Your task to perform on an android device: View the shopping cart on newegg.com. Search for "beats solo 3" on newegg.com, select the first entry, add it to the cart, then select checkout. Image 0: 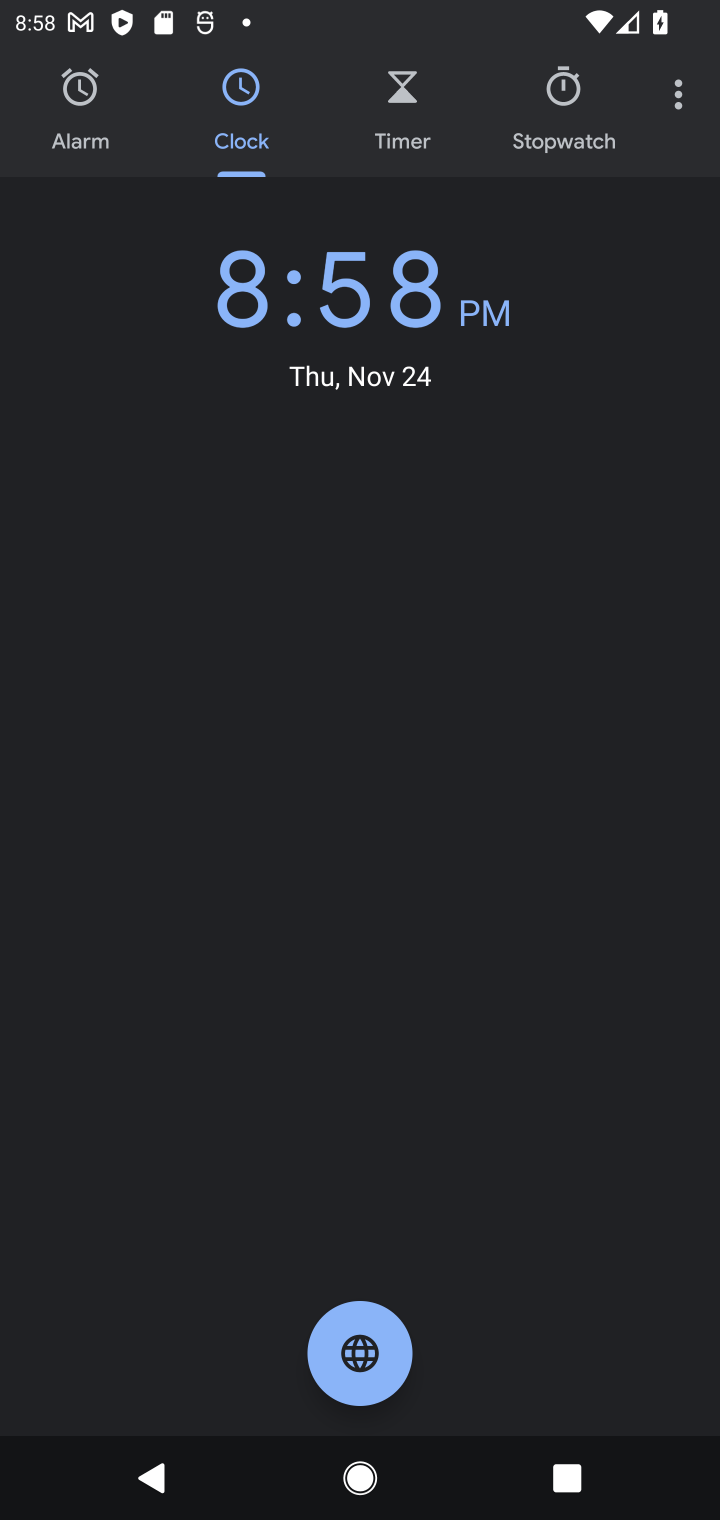
Step 0: press home button
Your task to perform on an android device: View the shopping cart on newegg.com. Search for "beats solo 3" on newegg.com, select the first entry, add it to the cart, then select checkout. Image 1: 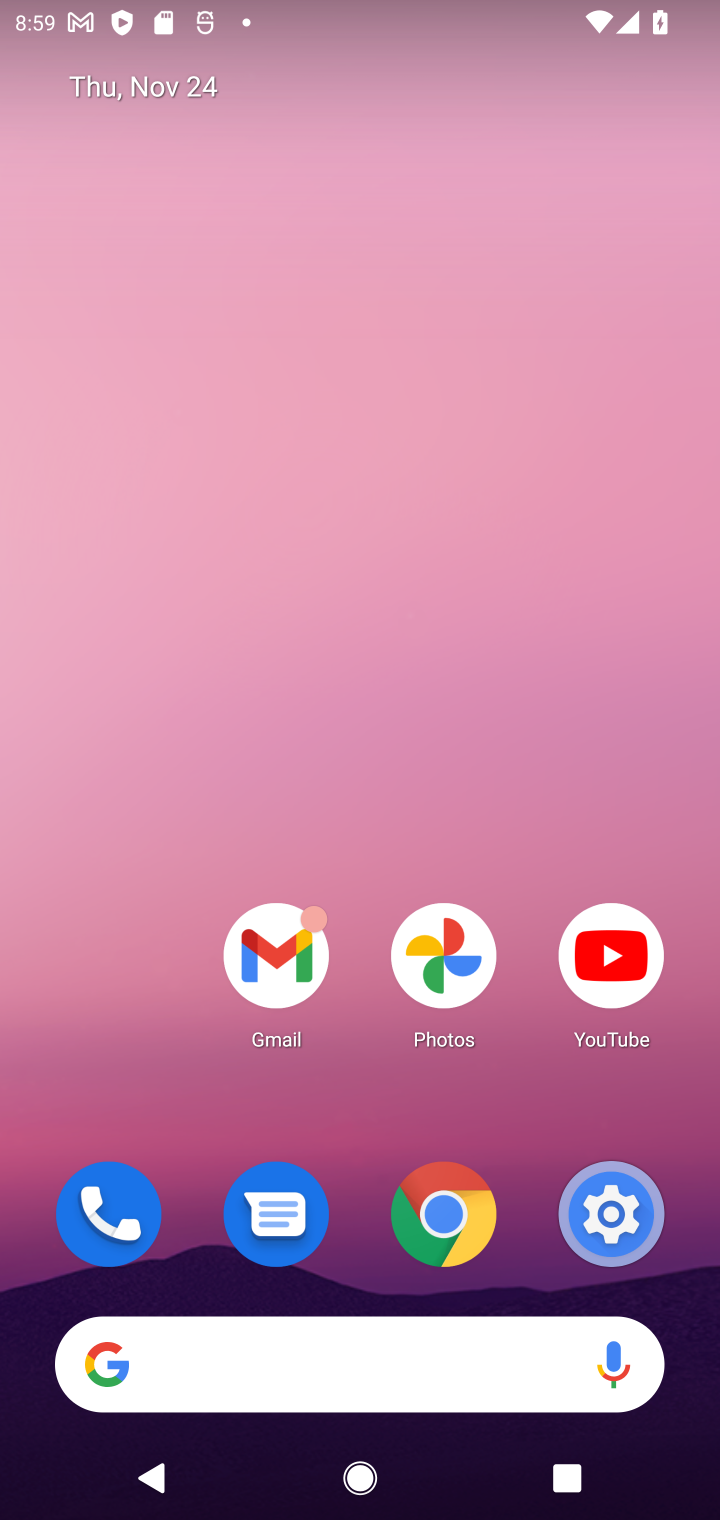
Step 1: click (320, 1345)
Your task to perform on an android device: View the shopping cart on newegg.com. Search for "beats solo 3" on newegg.com, select the first entry, add it to the cart, then select checkout. Image 2: 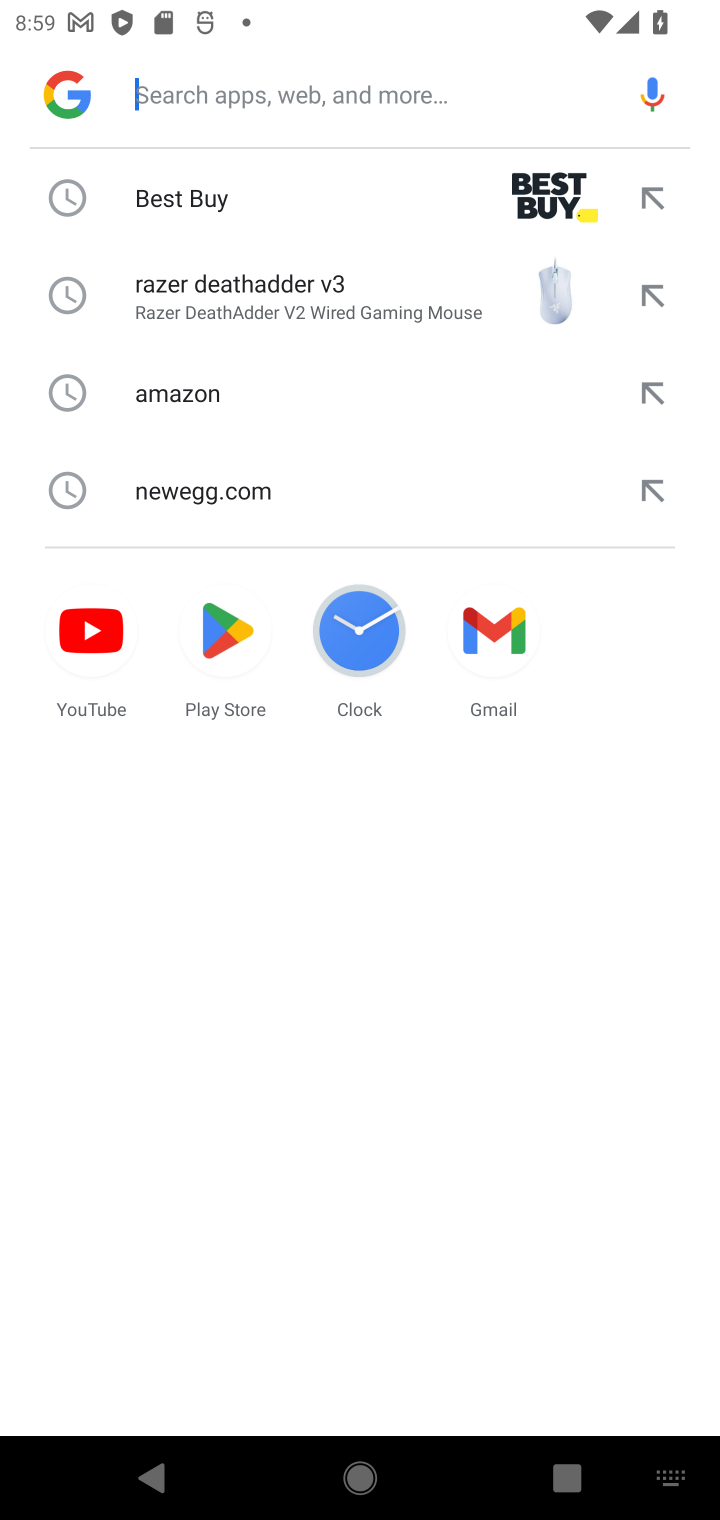
Step 2: type "beats solo 3"
Your task to perform on an android device: View the shopping cart on newegg.com. Search for "beats solo 3" on newegg.com, select the first entry, add it to the cart, then select checkout. Image 3: 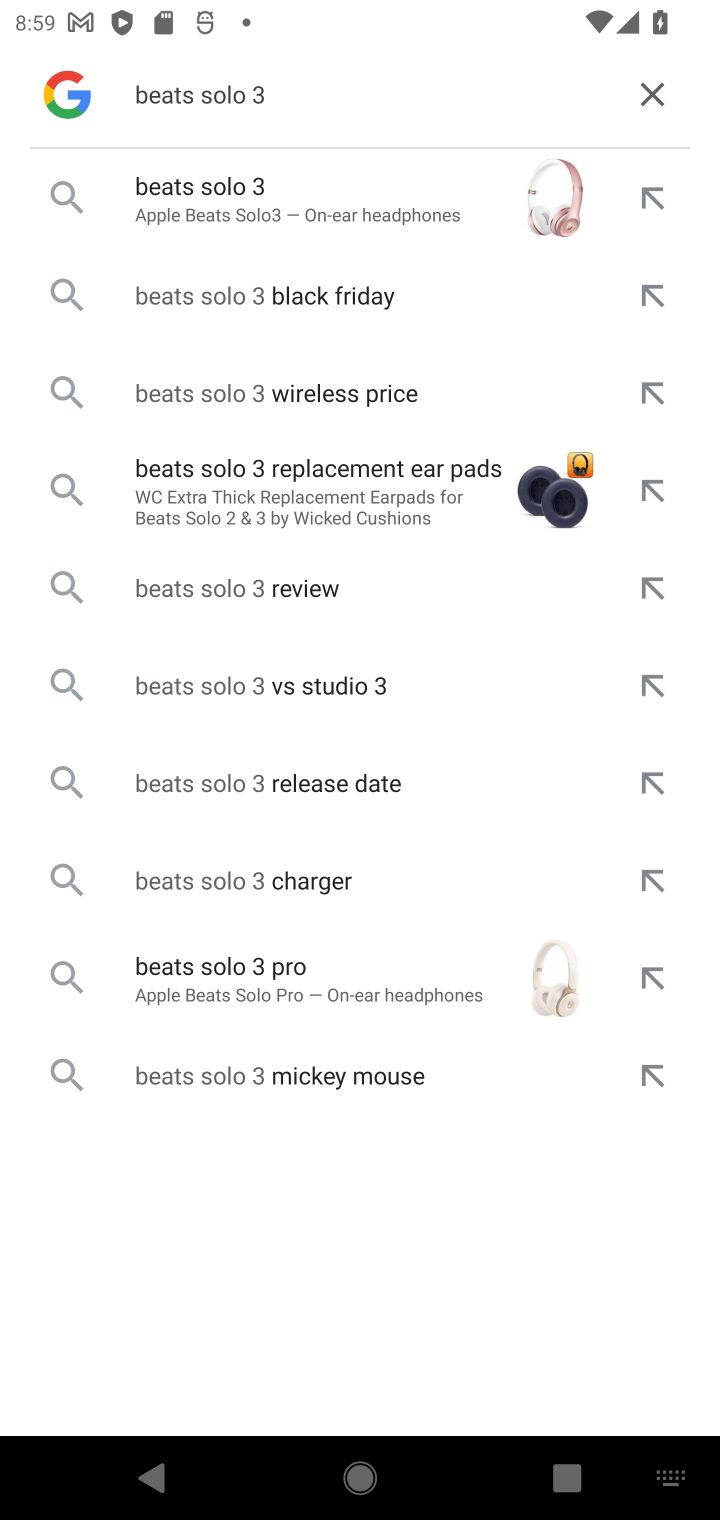
Step 3: click (332, 166)
Your task to perform on an android device: View the shopping cart on newegg.com. Search for "beats solo 3" on newegg.com, select the first entry, add it to the cart, then select checkout. Image 4: 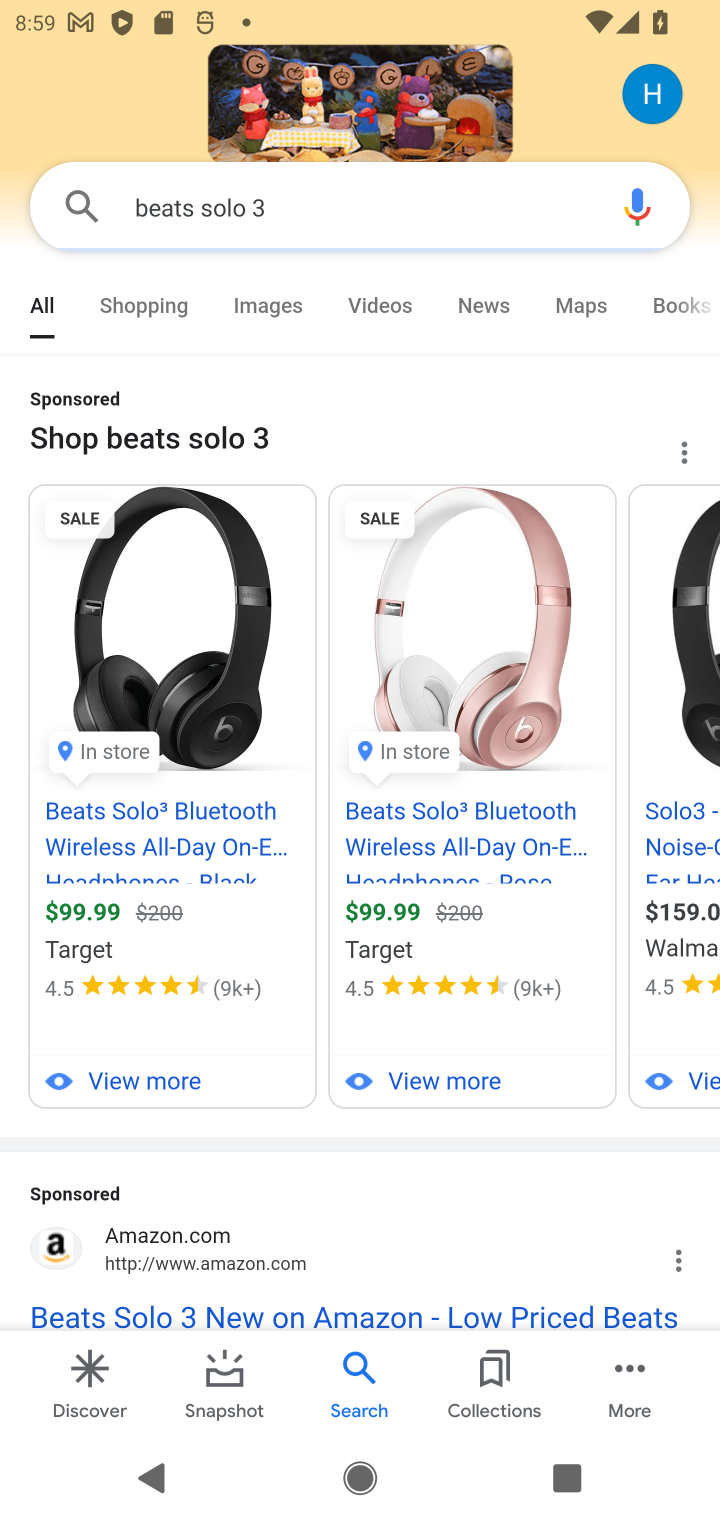
Step 4: click (252, 815)
Your task to perform on an android device: View the shopping cart on newegg.com. Search for "beats solo 3" on newegg.com, select the first entry, add it to the cart, then select checkout. Image 5: 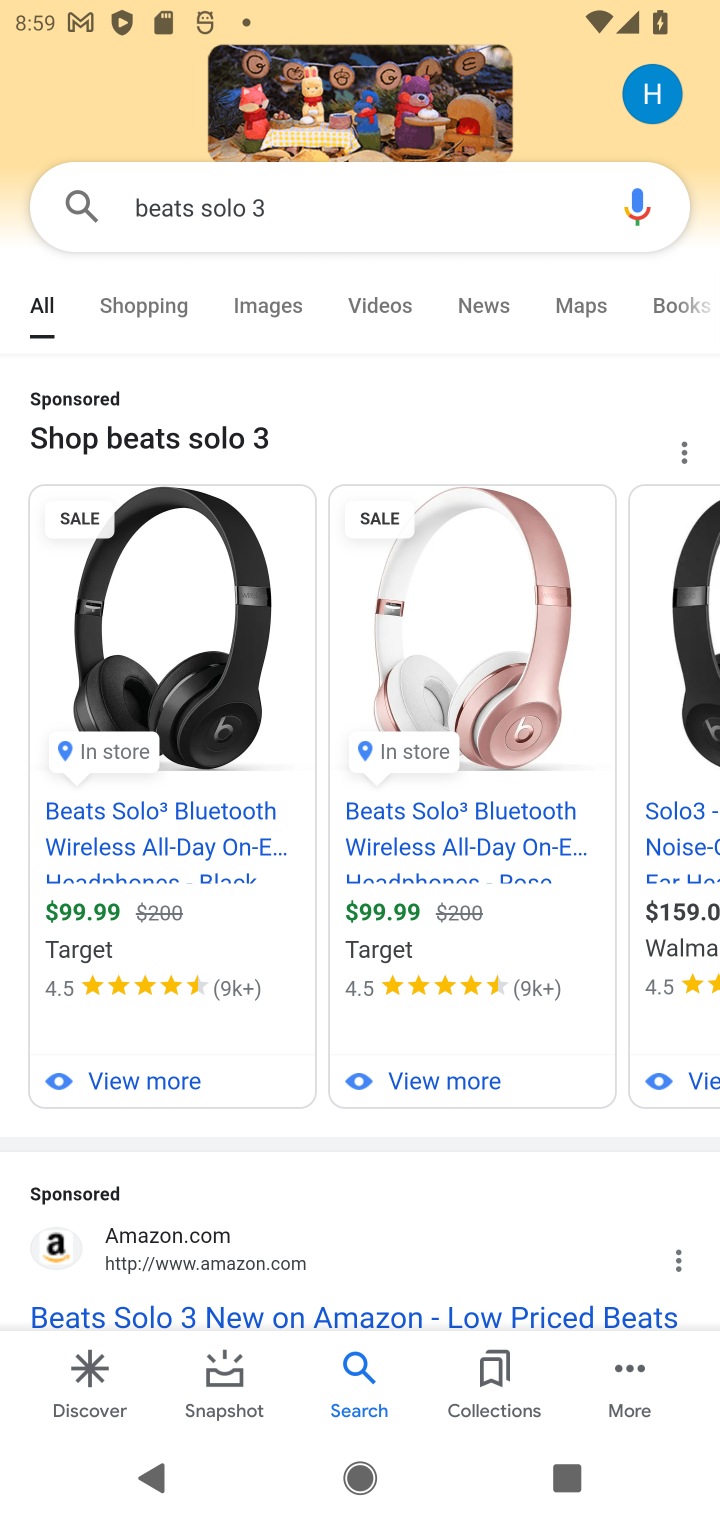
Step 5: task complete